Your task to perform on an android device: turn vacation reply on in the gmail app Image 0: 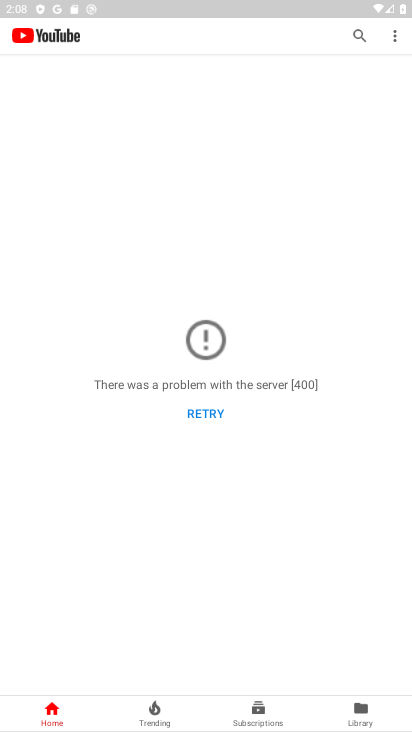
Step 0: press home button
Your task to perform on an android device: turn vacation reply on in the gmail app Image 1: 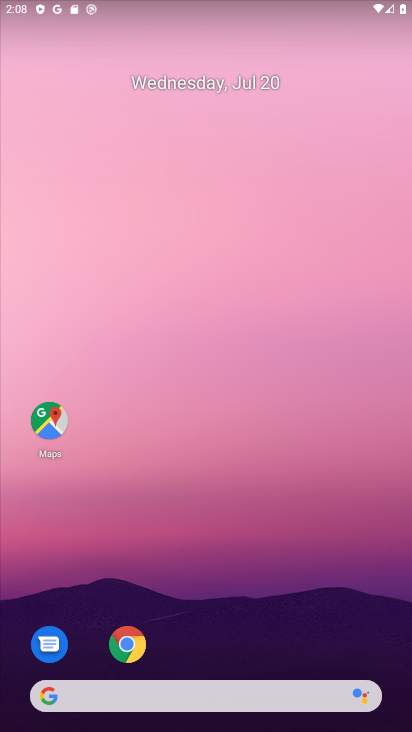
Step 1: drag from (212, 679) to (182, 216)
Your task to perform on an android device: turn vacation reply on in the gmail app Image 2: 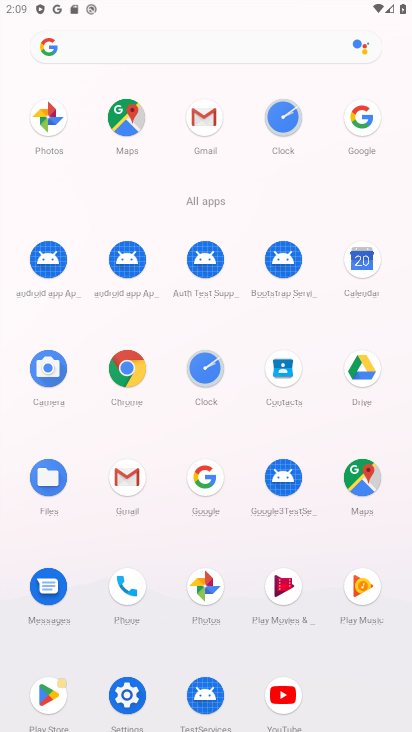
Step 2: click (204, 118)
Your task to perform on an android device: turn vacation reply on in the gmail app Image 3: 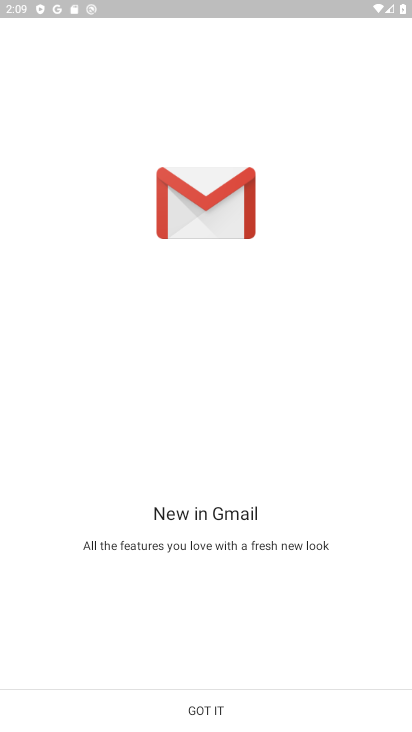
Step 3: click (210, 710)
Your task to perform on an android device: turn vacation reply on in the gmail app Image 4: 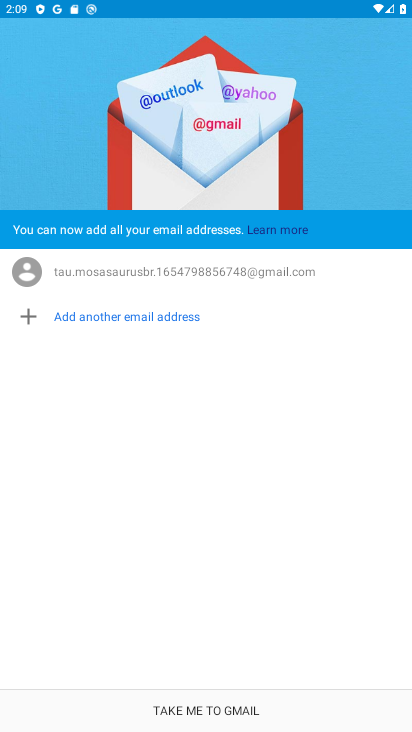
Step 4: click (210, 710)
Your task to perform on an android device: turn vacation reply on in the gmail app Image 5: 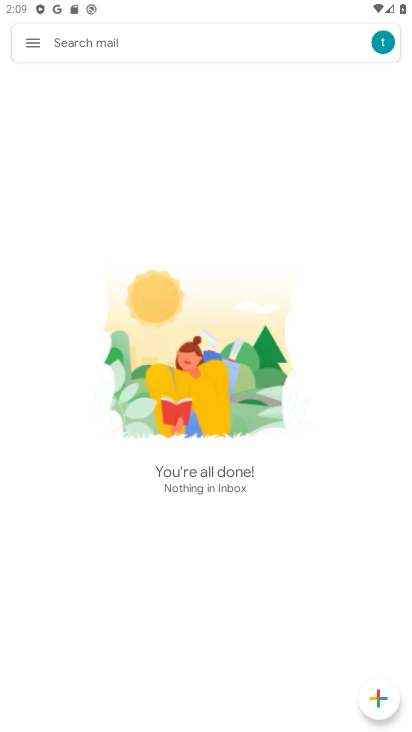
Step 5: click (31, 45)
Your task to perform on an android device: turn vacation reply on in the gmail app Image 6: 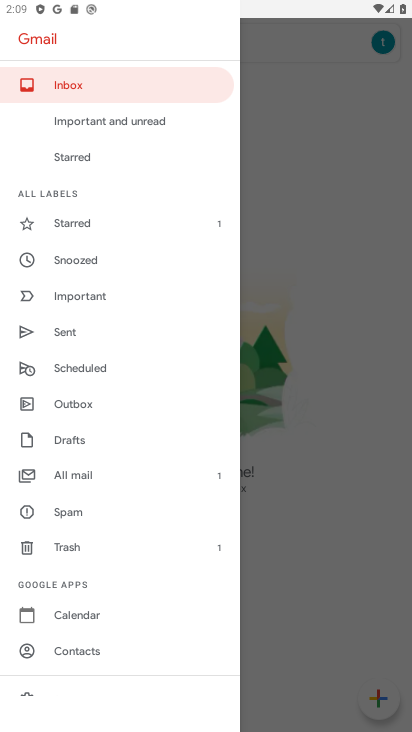
Step 6: drag from (86, 527) to (117, 414)
Your task to perform on an android device: turn vacation reply on in the gmail app Image 7: 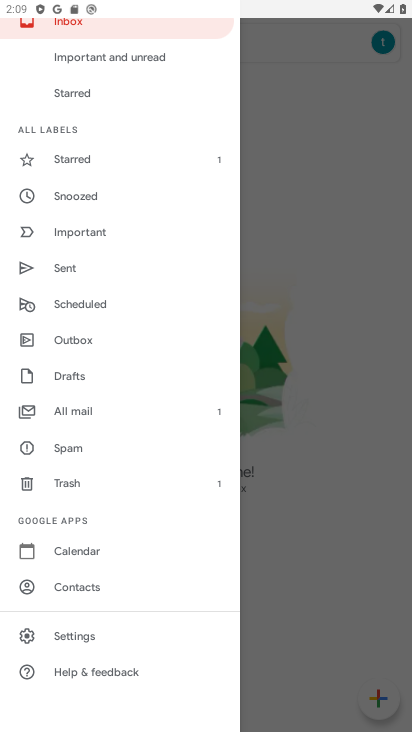
Step 7: click (72, 634)
Your task to perform on an android device: turn vacation reply on in the gmail app Image 8: 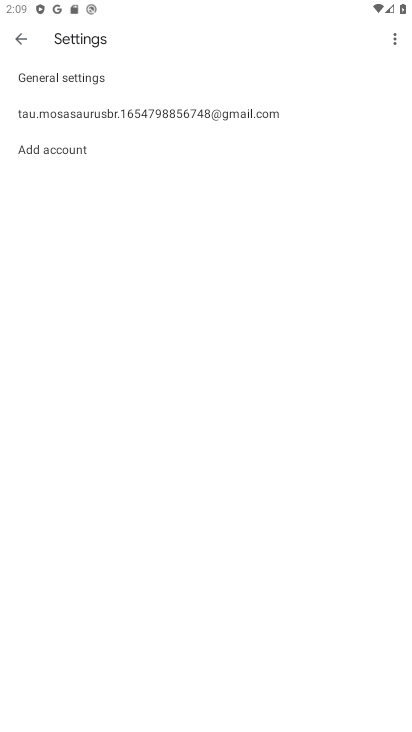
Step 8: click (108, 112)
Your task to perform on an android device: turn vacation reply on in the gmail app Image 9: 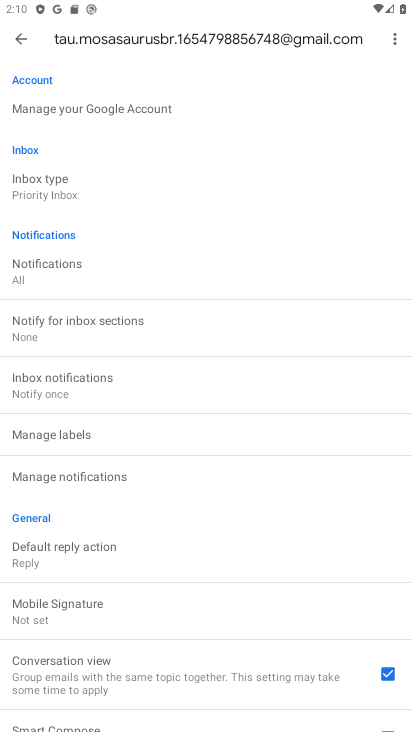
Step 9: drag from (167, 513) to (204, 356)
Your task to perform on an android device: turn vacation reply on in the gmail app Image 10: 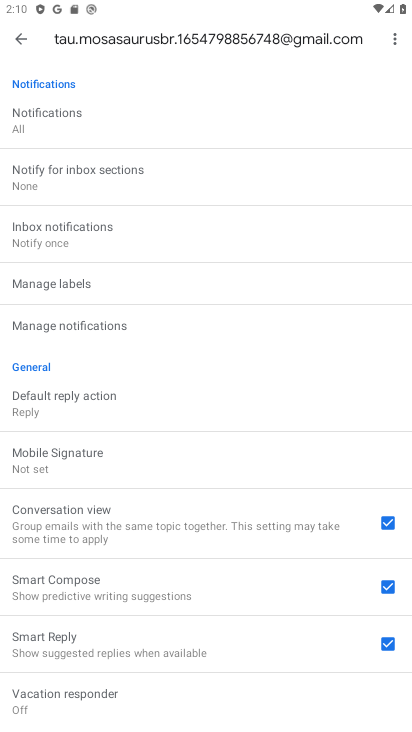
Step 10: drag from (160, 595) to (253, 425)
Your task to perform on an android device: turn vacation reply on in the gmail app Image 11: 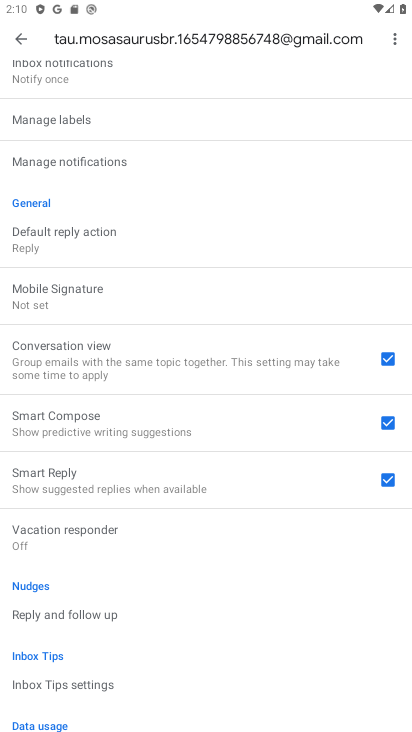
Step 11: click (79, 534)
Your task to perform on an android device: turn vacation reply on in the gmail app Image 12: 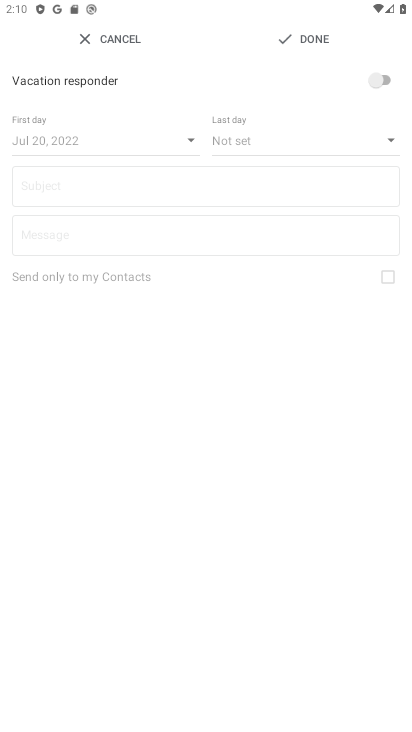
Step 12: click (373, 86)
Your task to perform on an android device: turn vacation reply on in the gmail app Image 13: 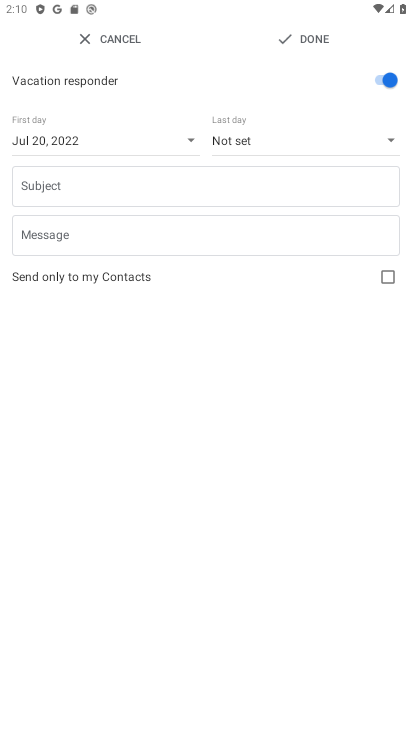
Step 13: task complete